Your task to perform on an android device: What is the recent news? Image 0: 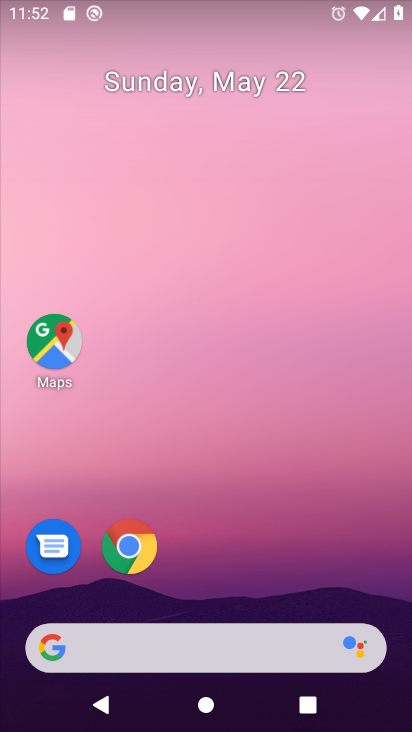
Step 0: drag from (170, 619) to (255, 126)
Your task to perform on an android device: What is the recent news? Image 1: 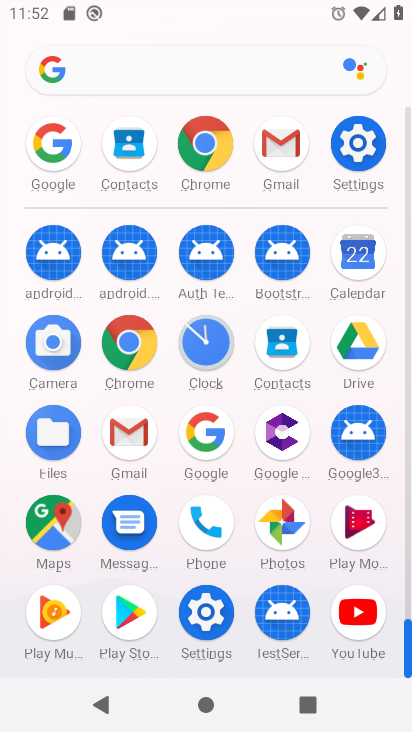
Step 1: click (195, 442)
Your task to perform on an android device: What is the recent news? Image 2: 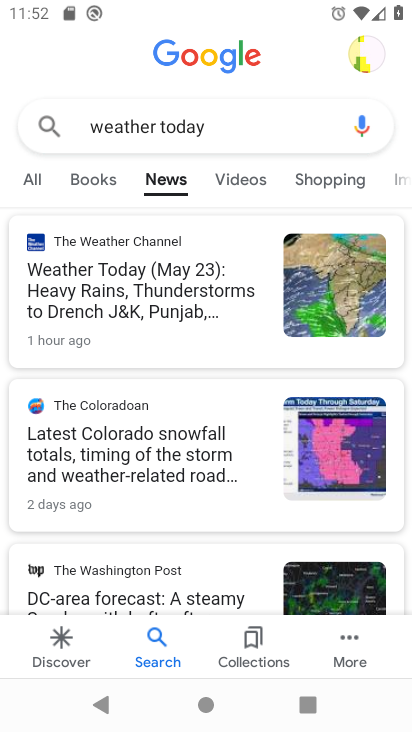
Step 2: task complete